Your task to perform on an android device: Open CNN.com Image 0: 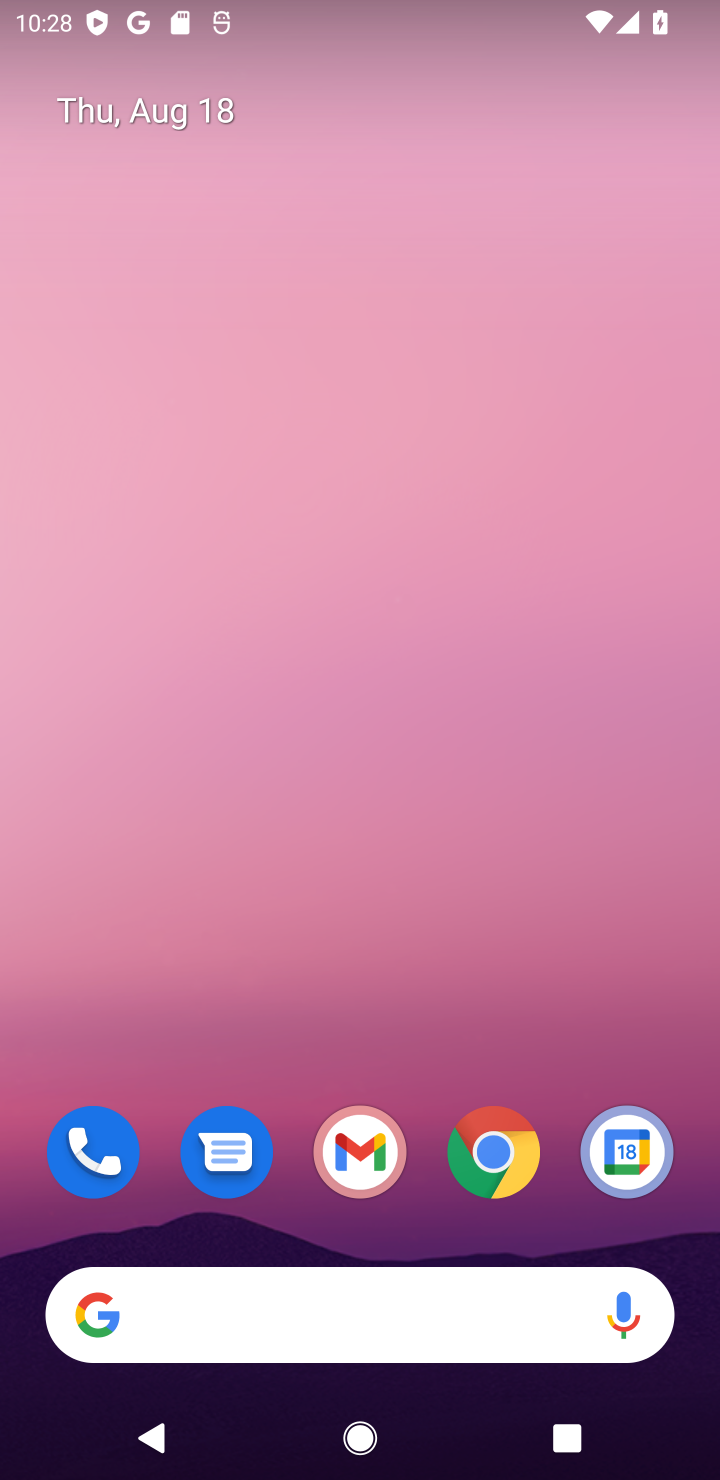
Step 0: click (447, 1326)
Your task to perform on an android device: Open CNN.com Image 1: 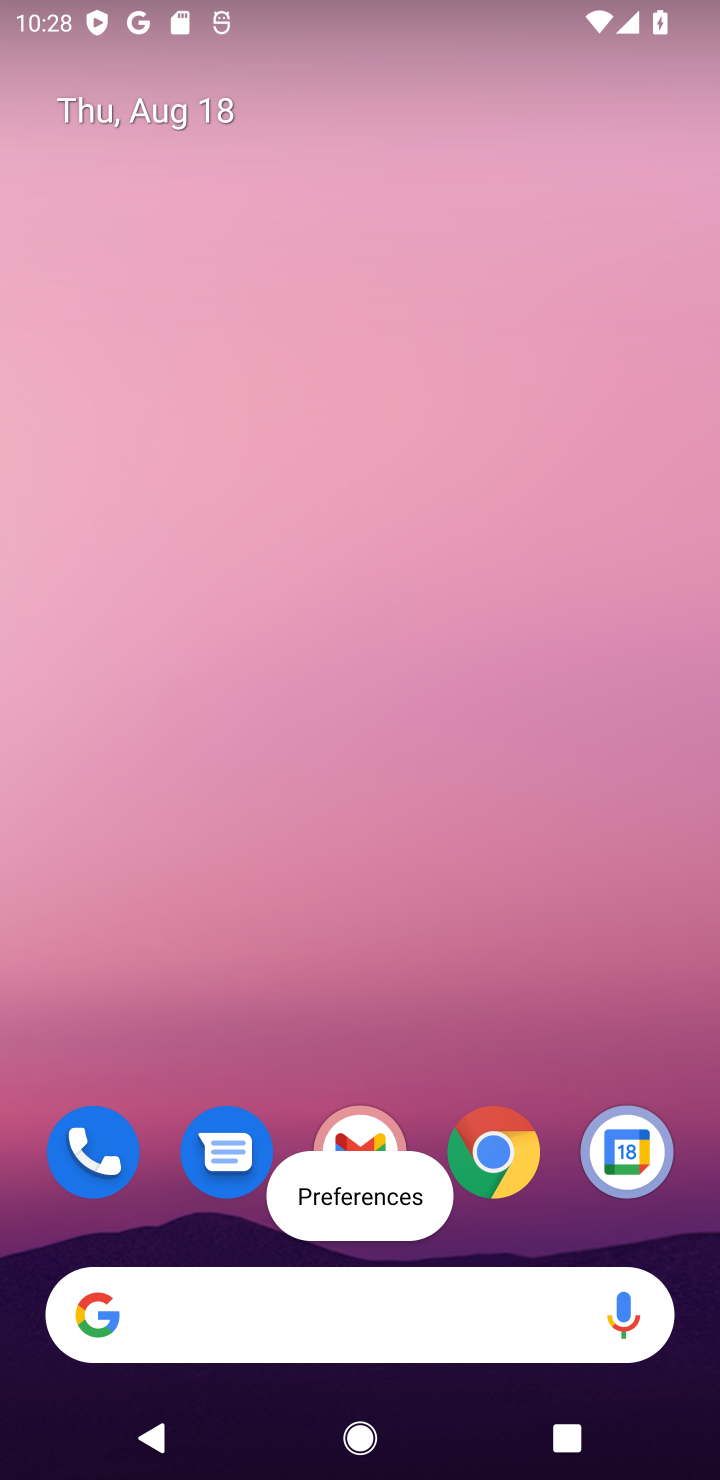
Step 1: click (318, 1305)
Your task to perform on an android device: Open CNN.com Image 2: 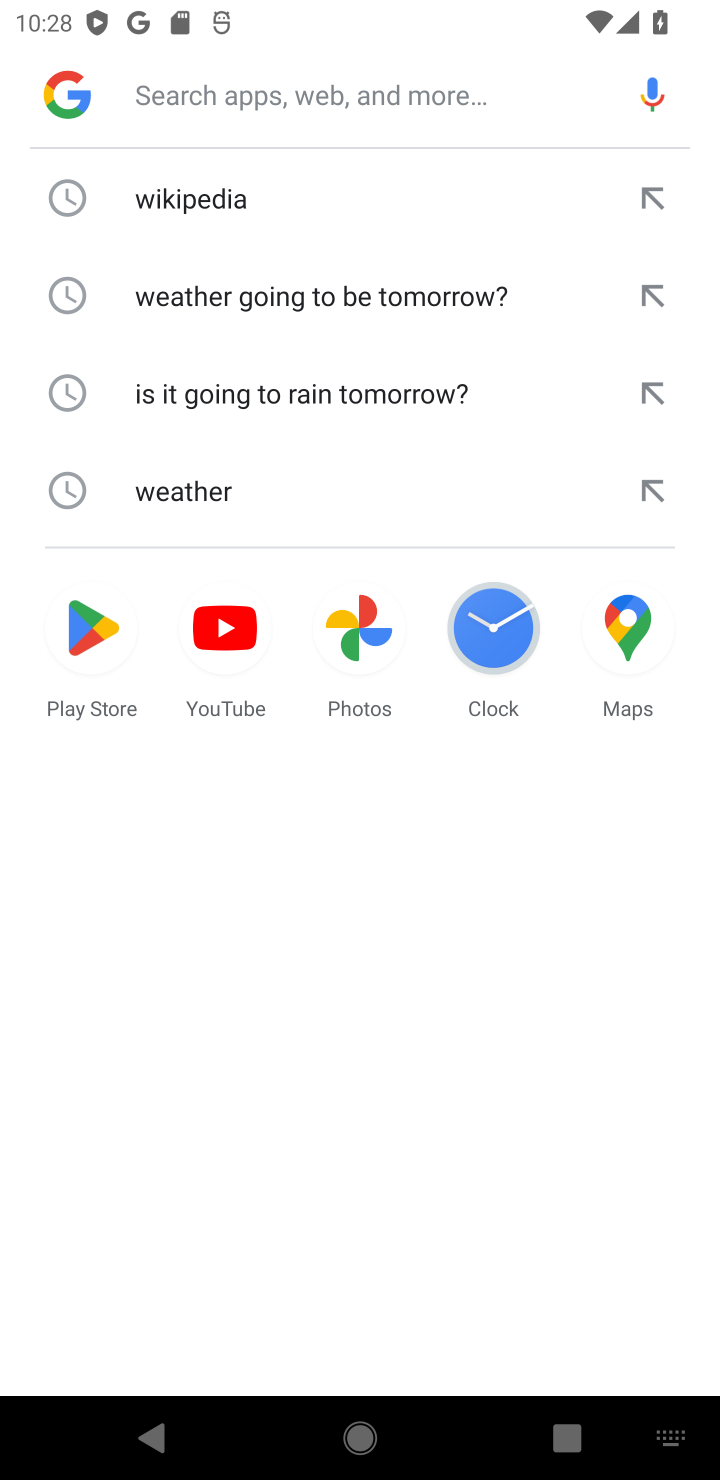
Step 2: type "cnn.com"
Your task to perform on an android device: Open CNN.com Image 3: 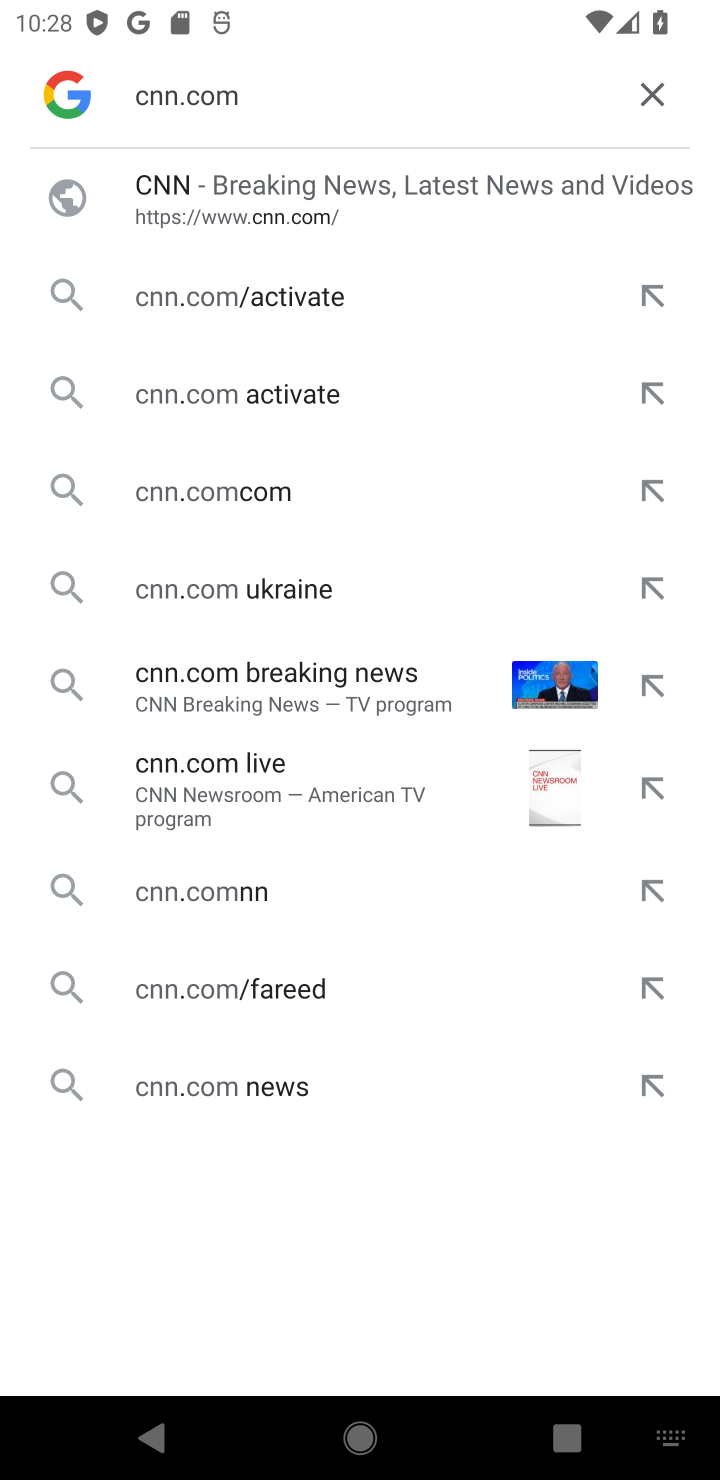
Step 3: click (344, 212)
Your task to perform on an android device: Open CNN.com Image 4: 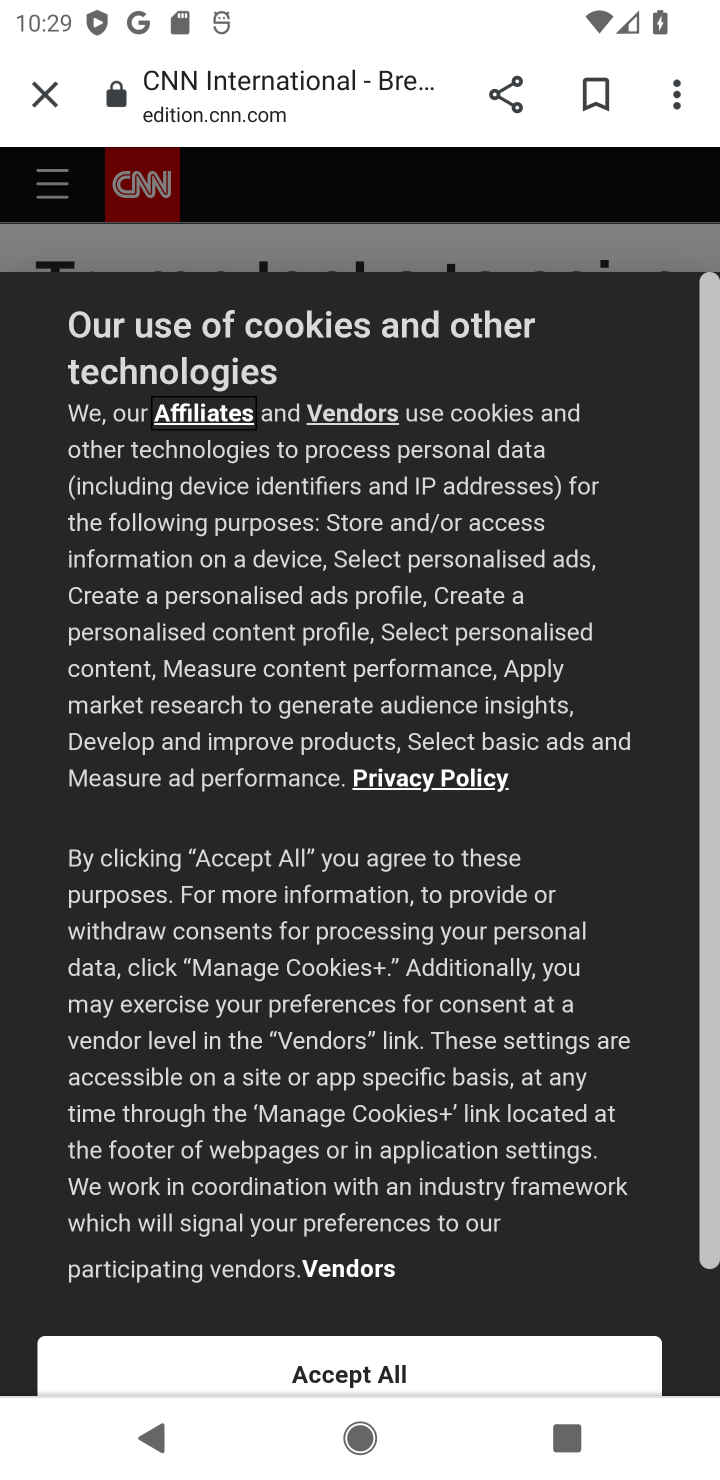
Step 4: click (579, 1368)
Your task to perform on an android device: Open CNN.com Image 5: 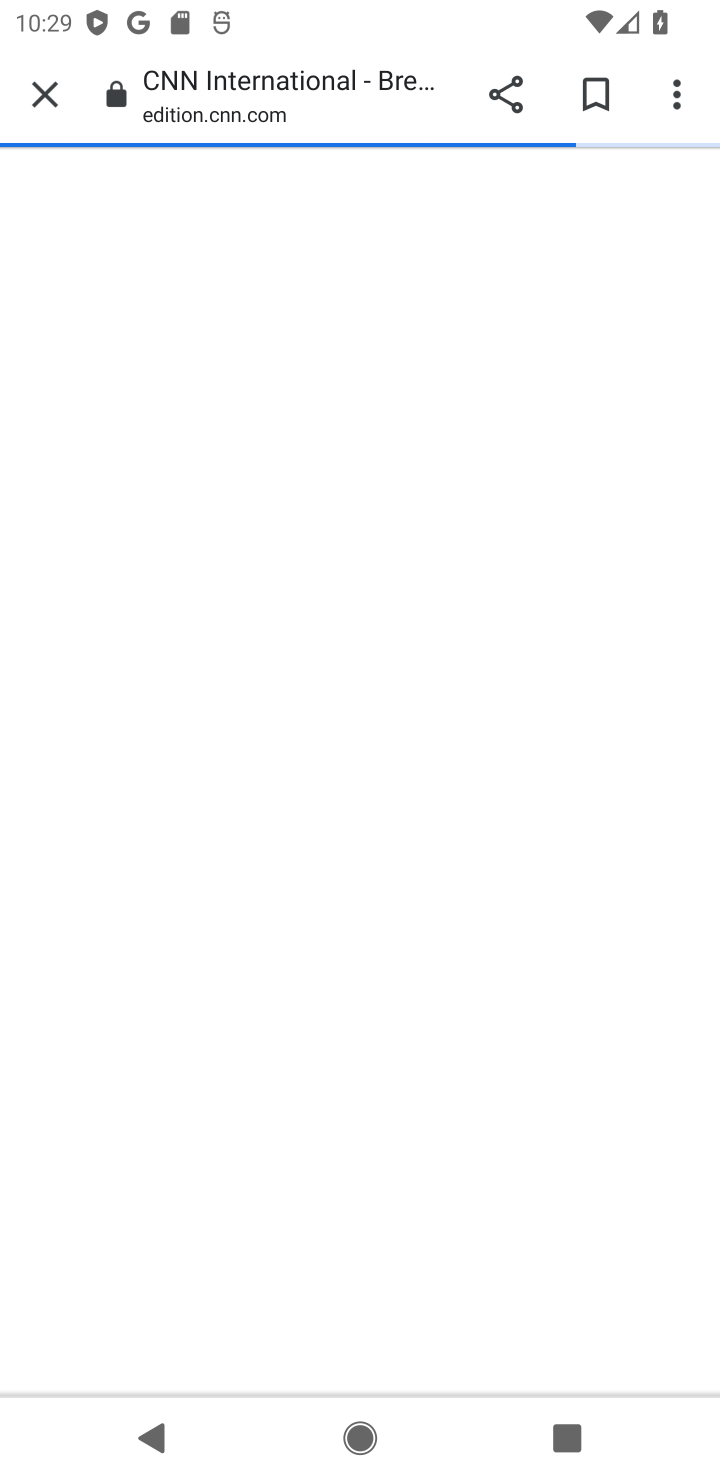
Step 5: task complete